Your task to perform on an android device: change text size in settings app Image 0: 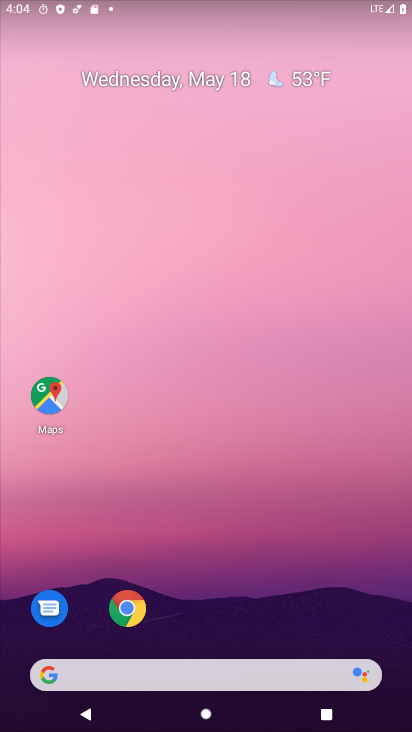
Step 0: drag from (316, 703) to (350, 9)
Your task to perform on an android device: change text size in settings app Image 1: 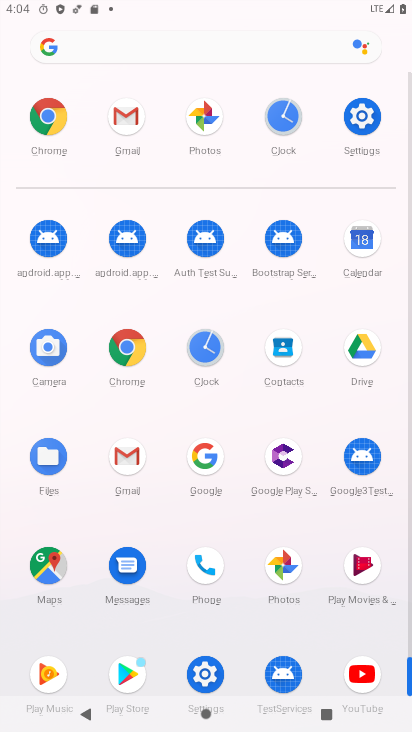
Step 1: click (352, 108)
Your task to perform on an android device: change text size in settings app Image 2: 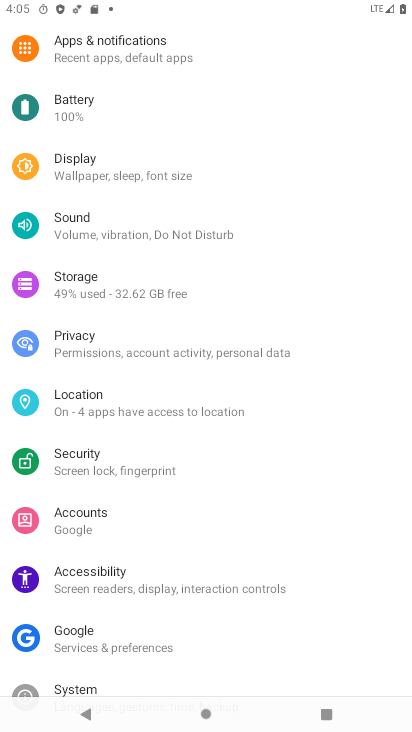
Step 2: drag from (194, 659) to (222, 244)
Your task to perform on an android device: change text size in settings app Image 3: 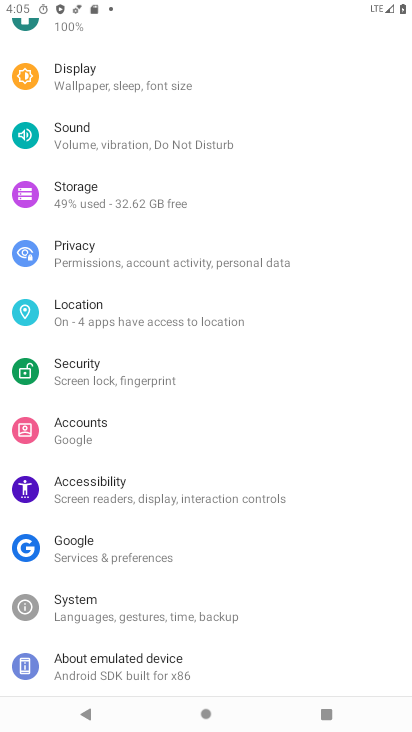
Step 3: click (152, 502)
Your task to perform on an android device: change text size in settings app Image 4: 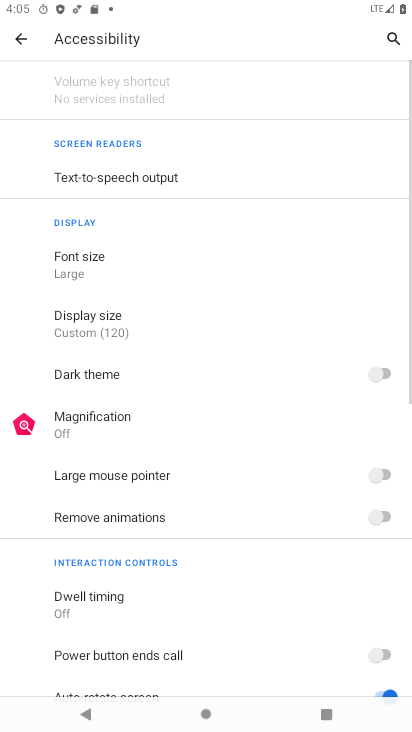
Step 4: click (99, 262)
Your task to perform on an android device: change text size in settings app Image 5: 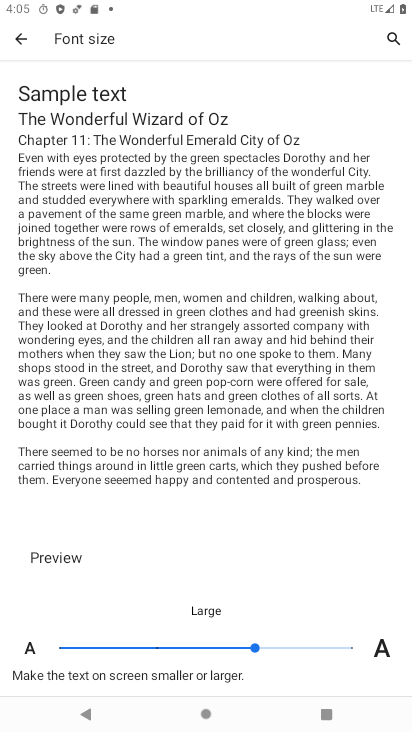
Step 5: click (145, 653)
Your task to perform on an android device: change text size in settings app Image 6: 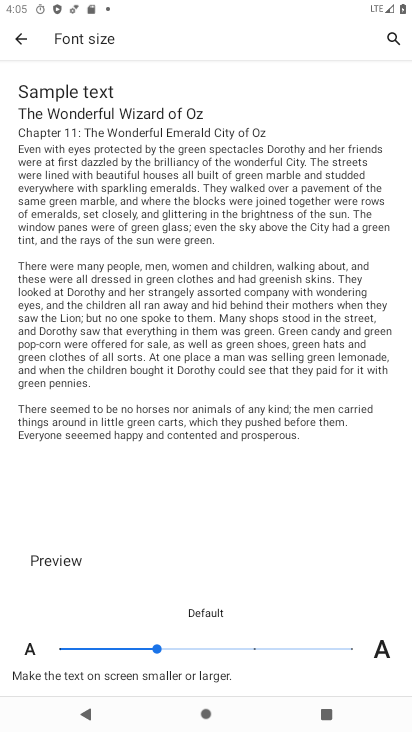
Step 6: task complete